Your task to perform on an android device: Go to battery settings Image 0: 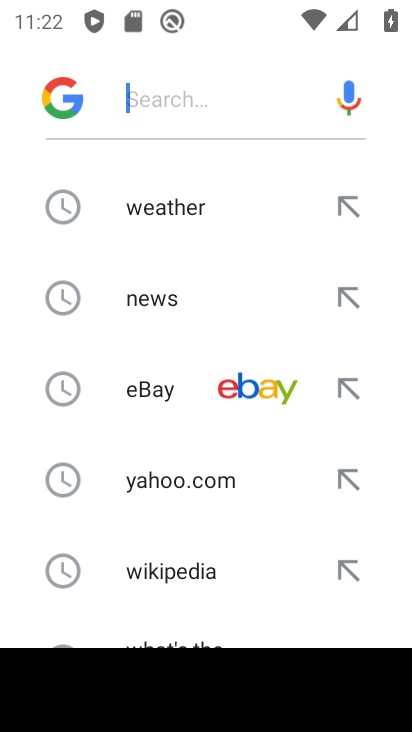
Step 0: press home button
Your task to perform on an android device: Go to battery settings Image 1: 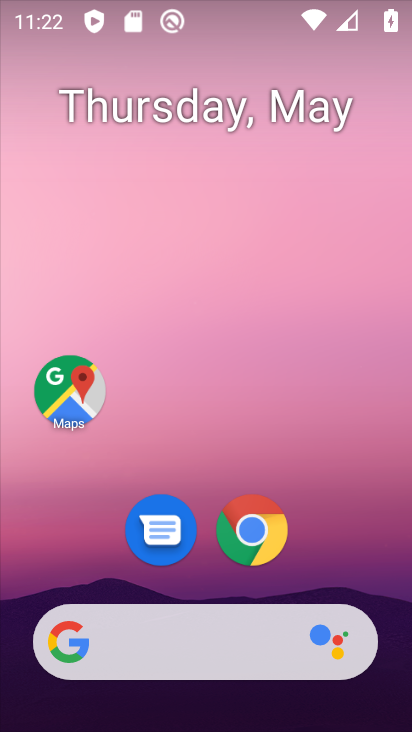
Step 1: drag from (194, 567) to (225, 49)
Your task to perform on an android device: Go to battery settings Image 2: 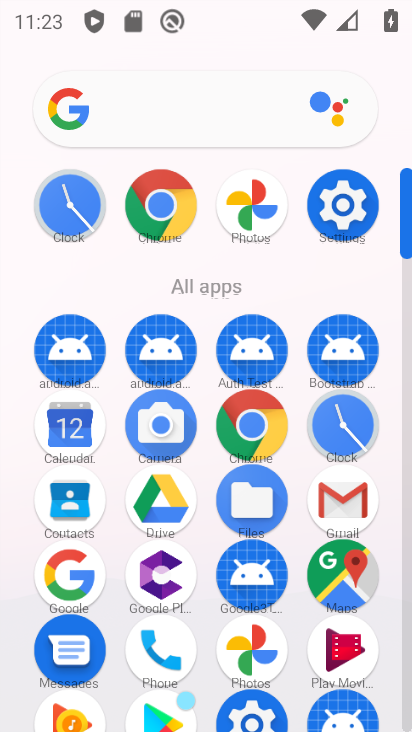
Step 2: click (359, 211)
Your task to perform on an android device: Go to battery settings Image 3: 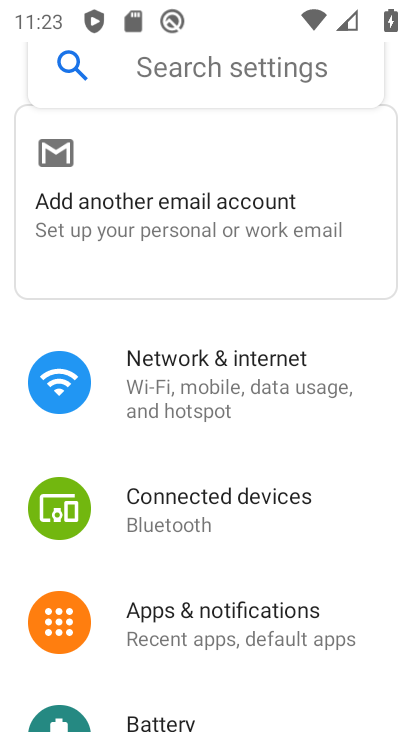
Step 3: drag from (192, 698) to (277, 386)
Your task to perform on an android device: Go to battery settings Image 4: 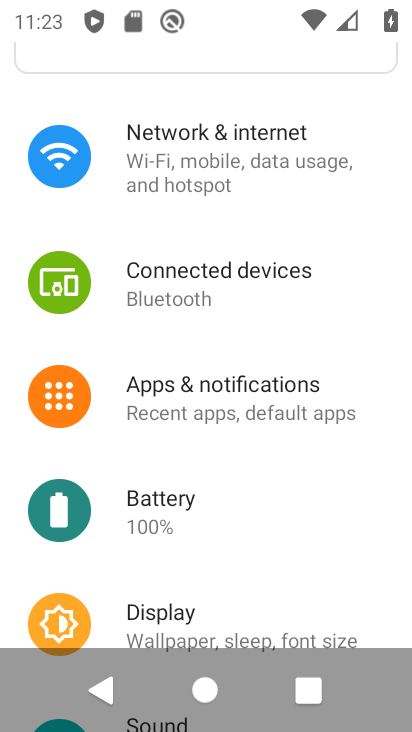
Step 4: click (266, 498)
Your task to perform on an android device: Go to battery settings Image 5: 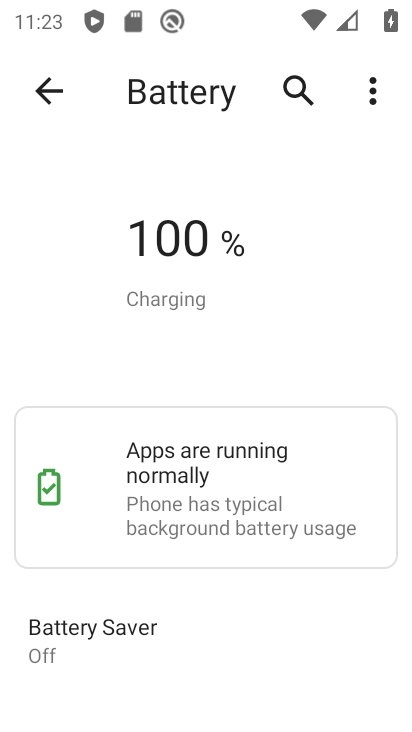
Step 5: task complete